Your task to perform on an android device: open app "Booking.com: Hotels and more" (install if not already installed), go to login, and select forgot password Image 0: 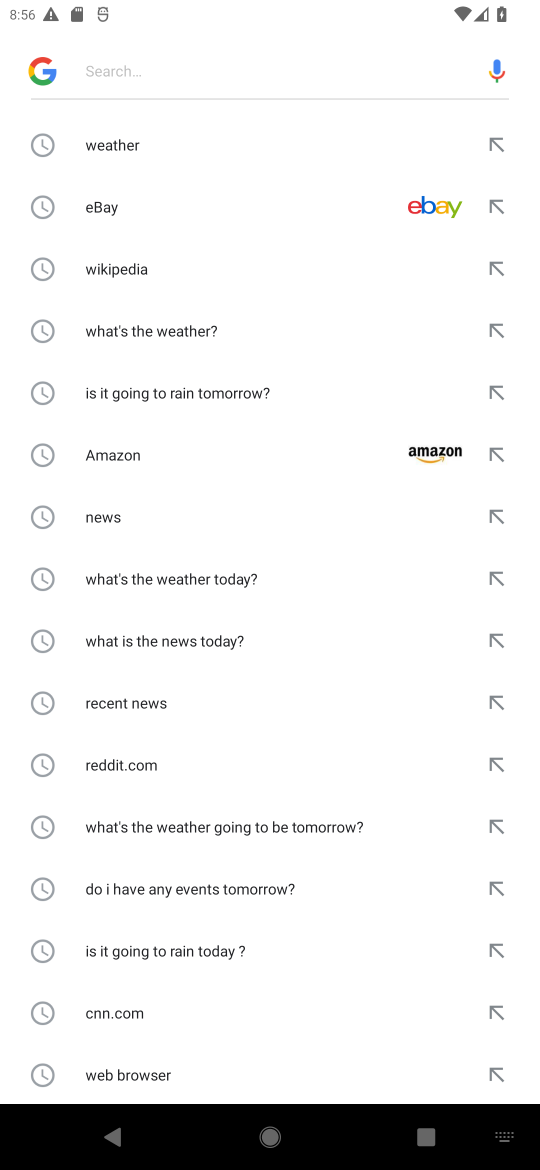
Step 0: press home button
Your task to perform on an android device: open app "Booking.com: Hotels and more" (install if not already installed), go to login, and select forgot password Image 1: 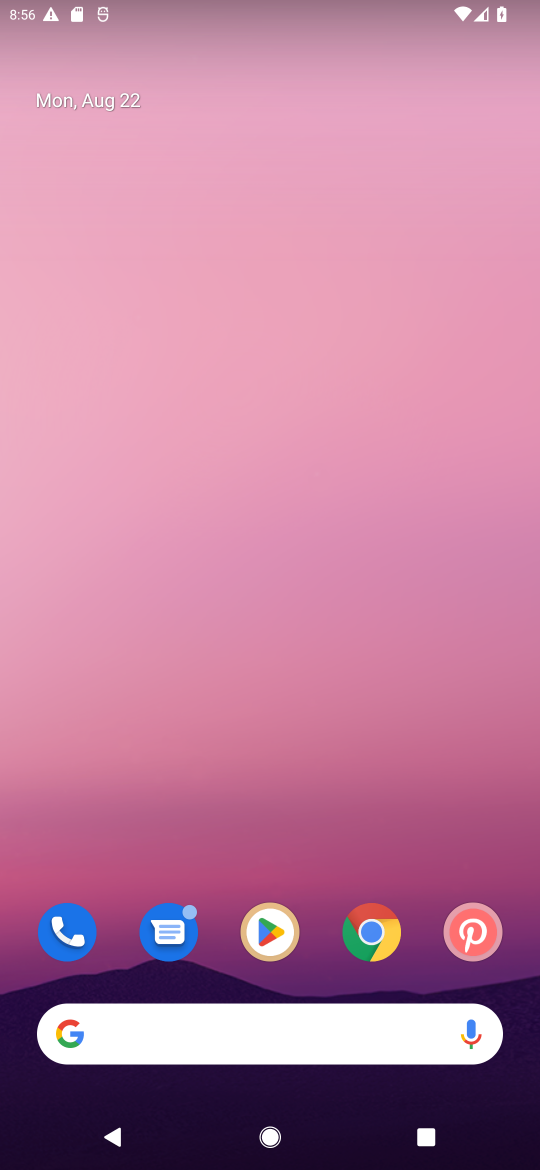
Step 1: click (265, 953)
Your task to perform on an android device: open app "Booking.com: Hotels and more" (install if not already installed), go to login, and select forgot password Image 2: 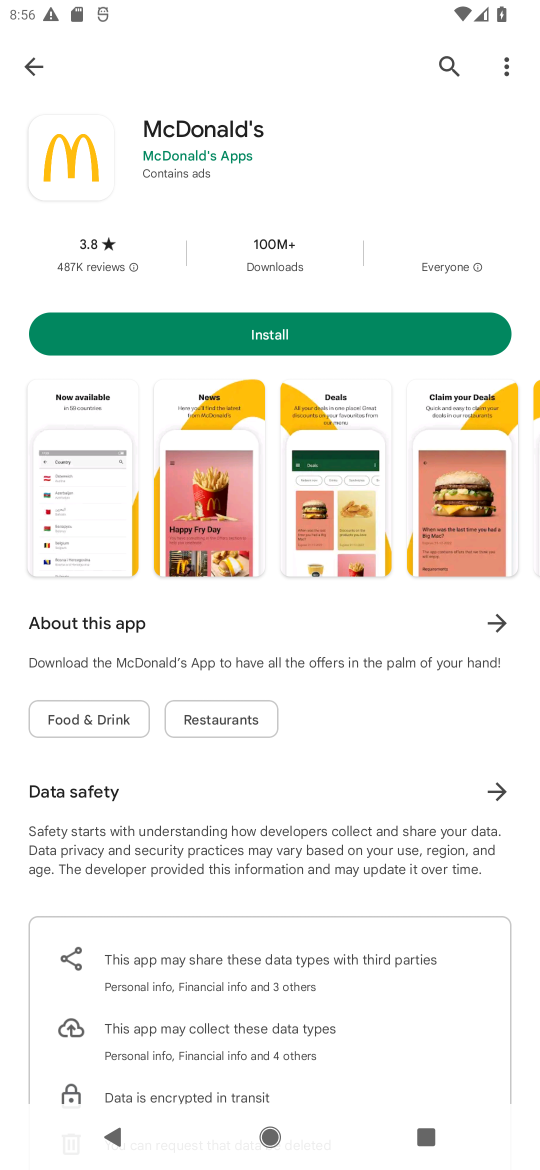
Step 2: click (439, 67)
Your task to perform on an android device: open app "Booking.com: Hotels and more" (install if not already installed), go to login, and select forgot password Image 3: 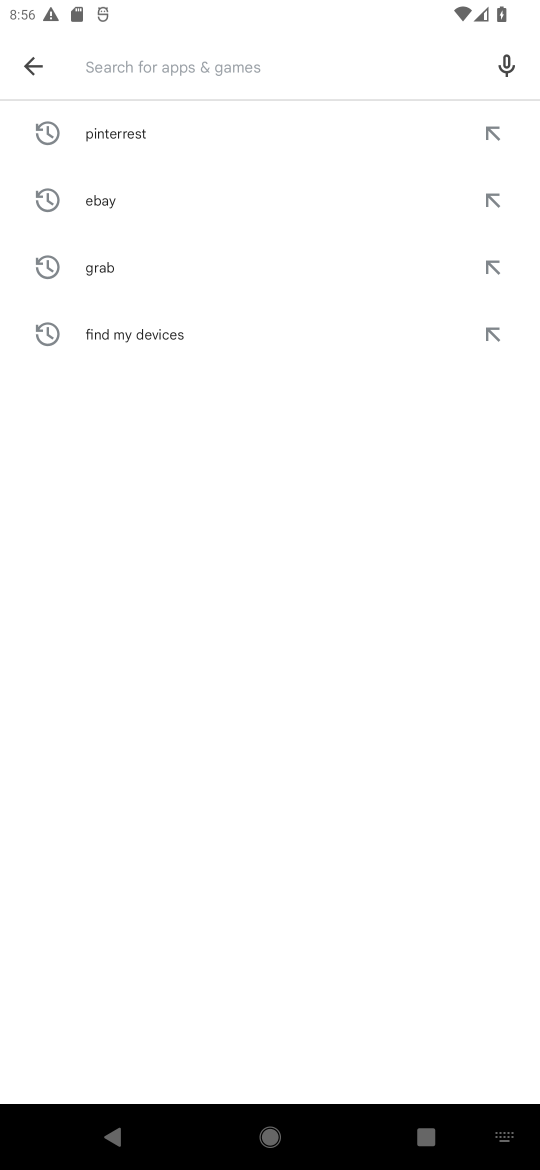
Step 3: type "booking"
Your task to perform on an android device: open app "Booking.com: Hotels and more" (install if not already installed), go to login, and select forgot password Image 4: 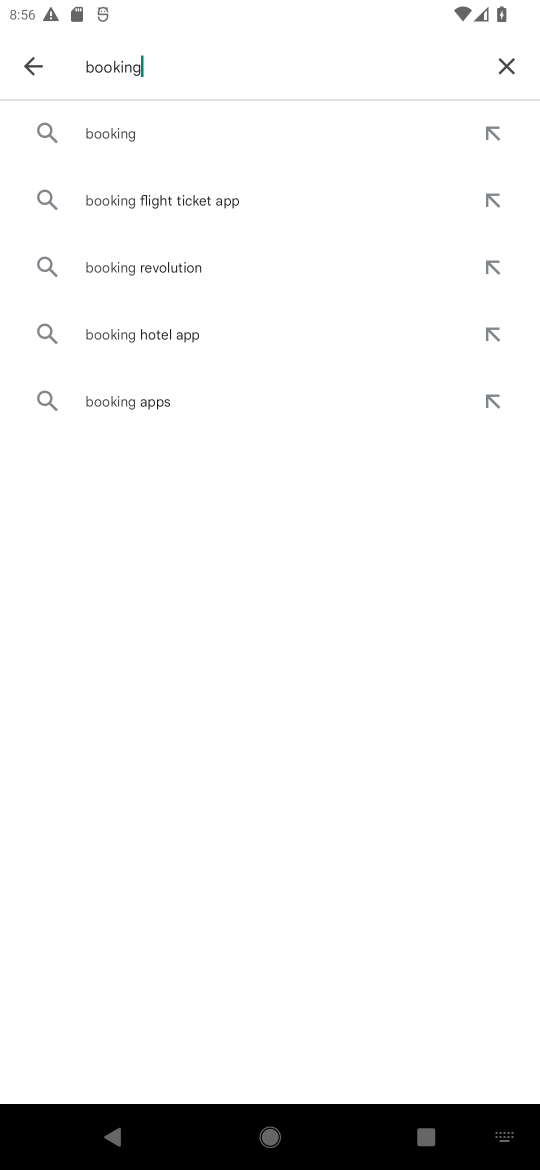
Step 4: click (269, 134)
Your task to perform on an android device: open app "Booking.com: Hotels and more" (install if not already installed), go to login, and select forgot password Image 5: 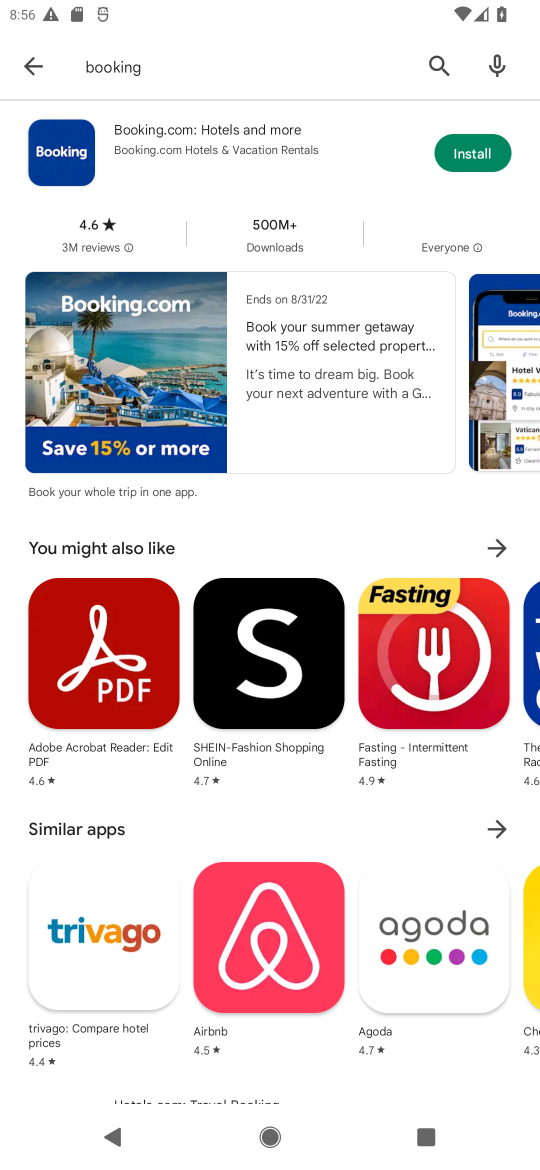
Step 5: click (474, 140)
Your task to perform on an android device: open app "Booking.com: Hotels and more" (install if not already installed), go to login, and select forgot password Image 6: 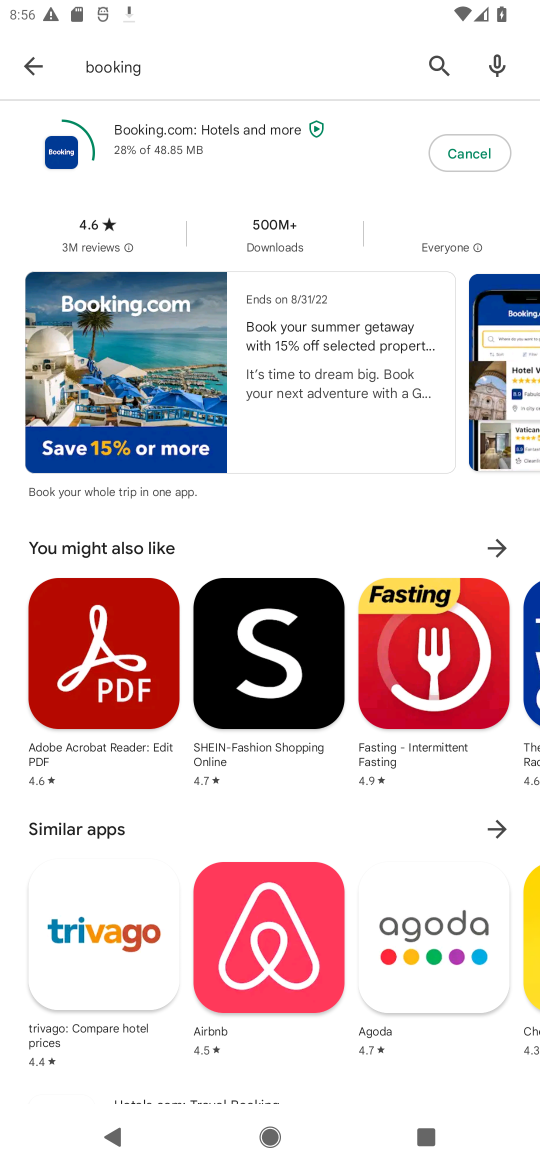
Step 6: task complete